Your task to perform on an android device: choose inbox layout in the gmail app Image 0: 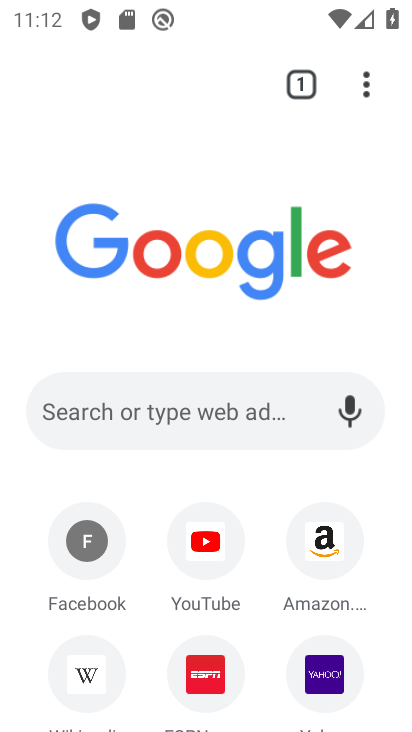
Step 0: press home button
Your task to perform on an android device: choose inbox layout in the gmail app Image 1: 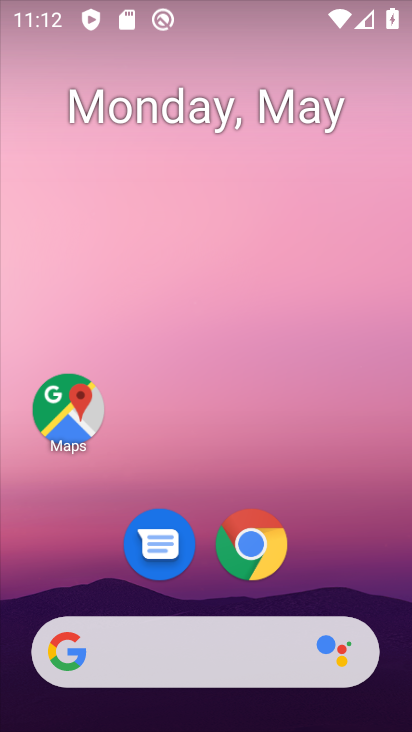
Step 1: drag from (376, 563) to (295, 91)
Your task to perform on an android device: choose inbox layout in the gmail app Image 2: 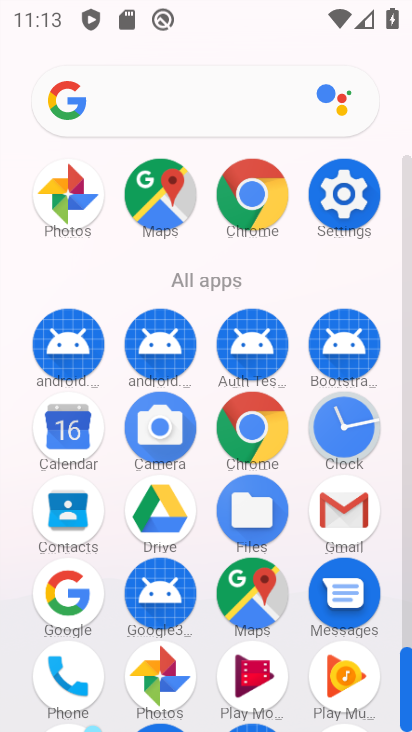
Step 2: click (347, 506)
Your task to perform on an android device: choose inbox layout in the gmail app Image 3: 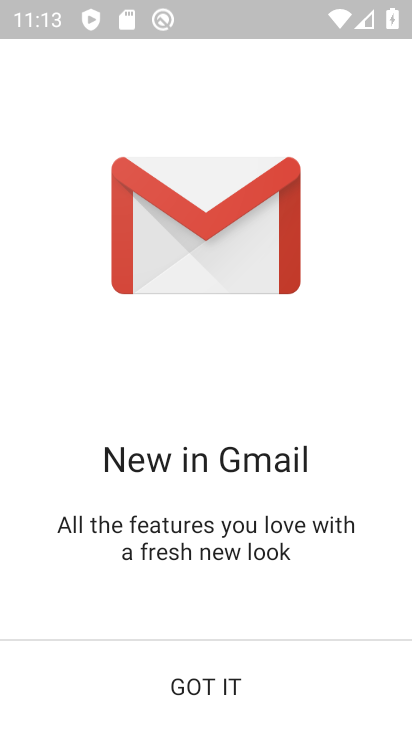
Step 3: click (229, 682)
Your task to perform on an android device: choose inbox layout in the gmail app Image 4: 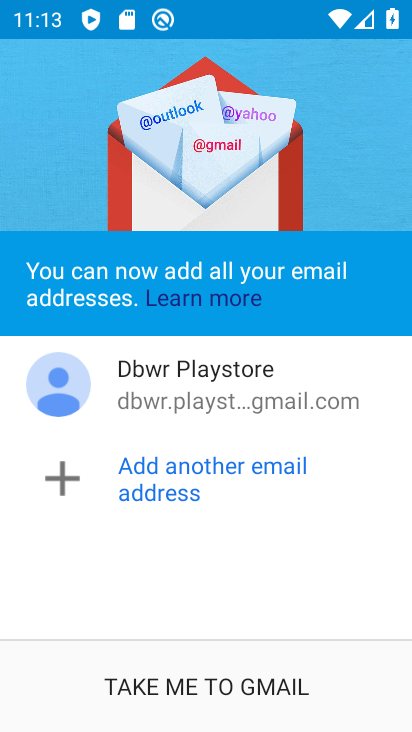
Step 4: click (228, 683)
Your task to perform on an android device: choose inbox layout in the gmail app Image 5: 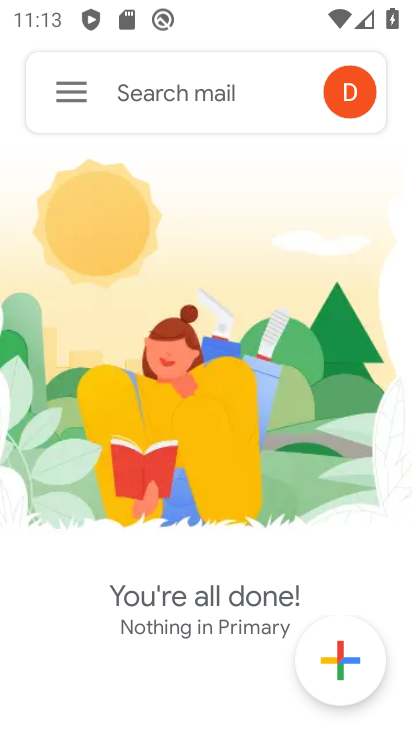
Step 5: click (66, 104)
Your task to perform on an android device: choose inbox layout in the gmail app Image 6: 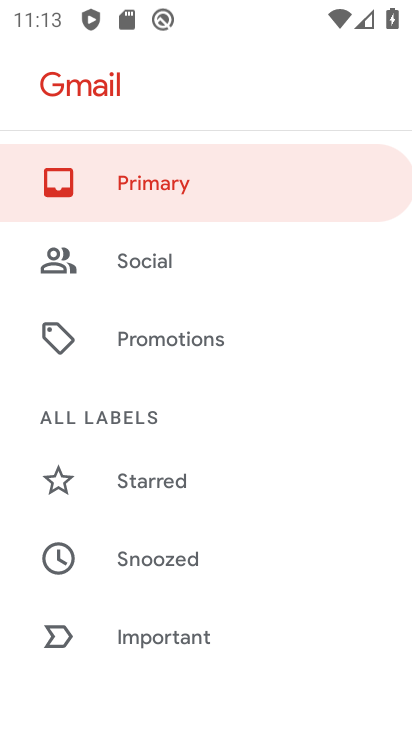
Step 6: drag from (247, 670) to (297, 219)
Your task to perform on an android device: choose inbox layout in the gmail app Image 7: 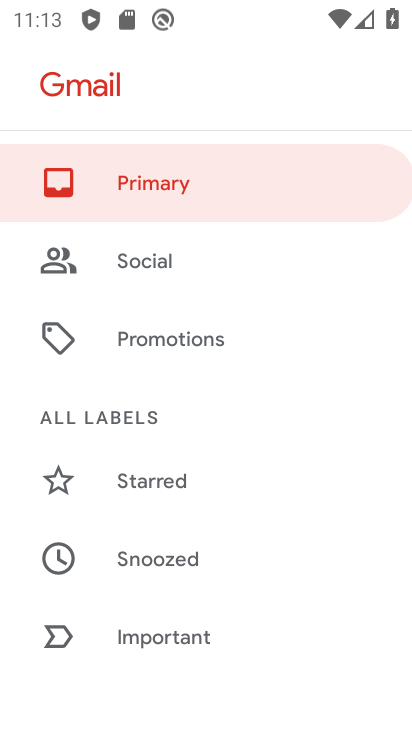
Step 7: drag from (269, 637) to (284, 248)
Your task to perform on an android device: choose inbox layout in the gmail app Image 8: 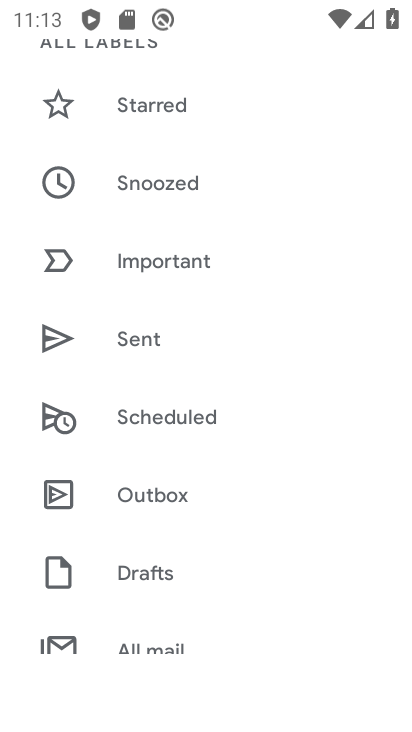
Step 8: drag from (235, 666) to (254, 230)
Your task to perform on an android device: choose inbox layout in the gmail app Image 9: 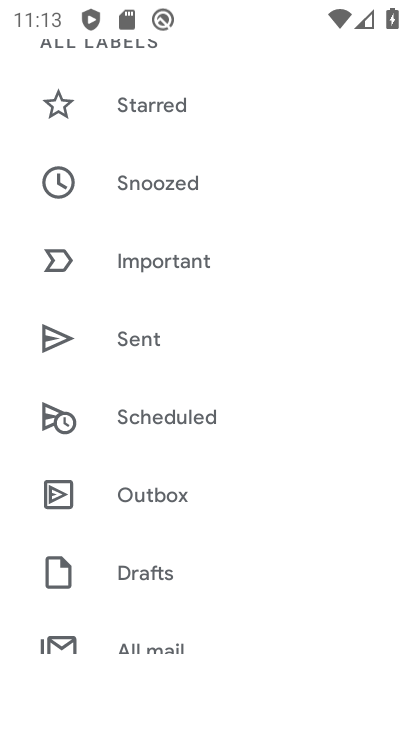
Step 9: drag from (233, 578) to (257, 127)
Your task to perform on an android device: choose inbox layout in the gmail app Image 10: 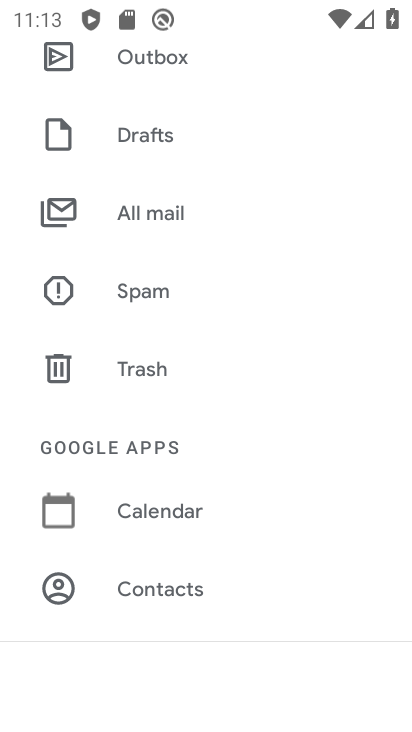
Step 10: drag from (238, 569) to (312, 151)
Your task to perform on an android device: choose inbox layout in the gmail app Image 11: 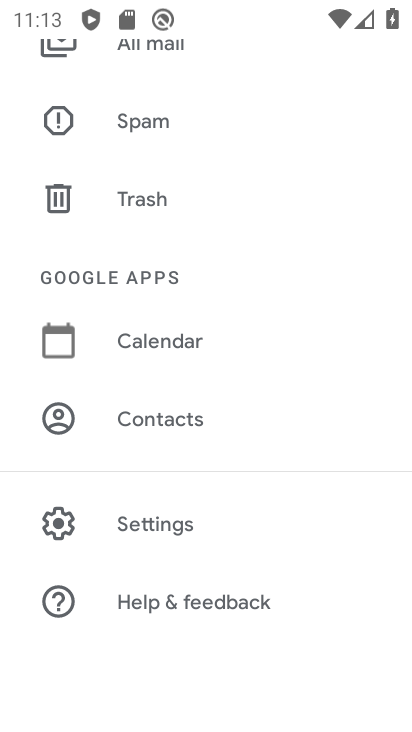
Step 11: click (165, 516)
Your task to perform on an android device: choose inbox layout in the gmail app Image 12: 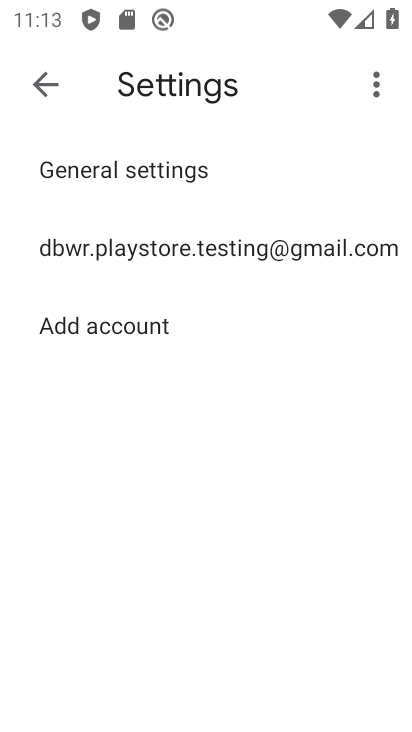
Step 12: click (202, 249)
Your task to perform on an android device: choose inbox layout in the gmail app Image 13: 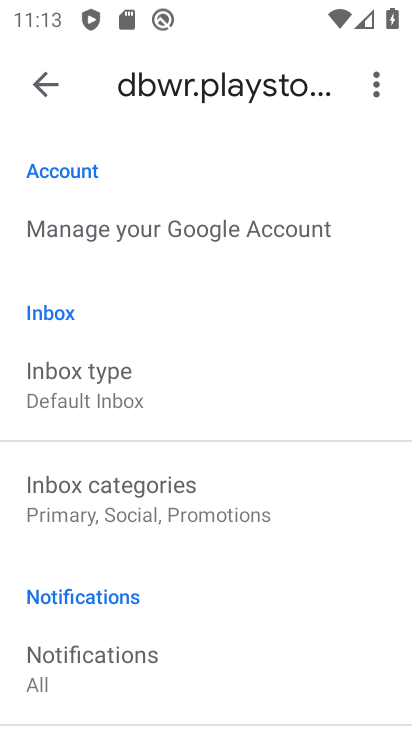
Step 13: click (125, 370)
Your task to perform on an android device: choose inbox layout in the gmail app Image 14: 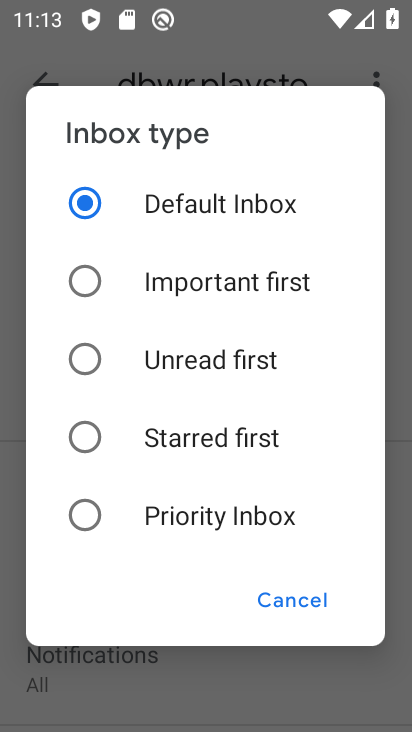
Step 14: click (88, 518)
Your task to perform on an android device: choose inbox layout in the gmail app Image 15: 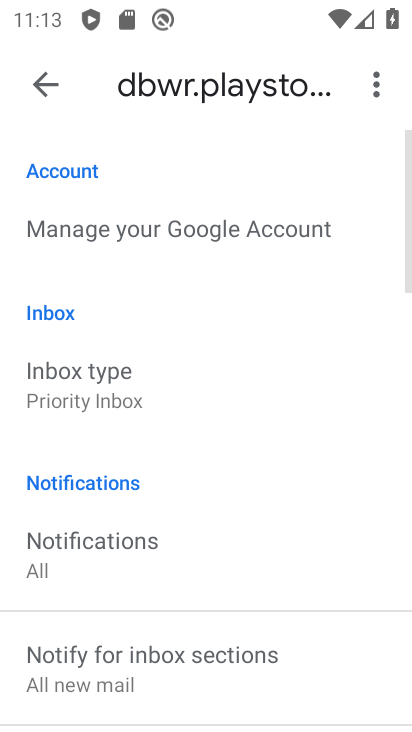
Step 15: task complete